Your task to perform on an android device: Open the map Image 0: 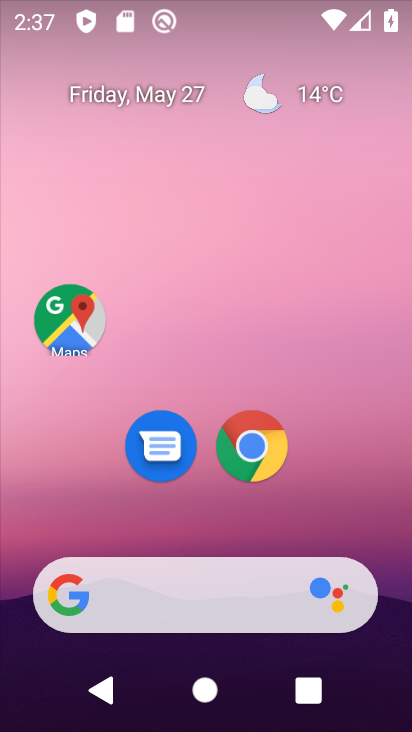
Step 0: press home button
Your task to perform on an android device: Open the map Image 1: 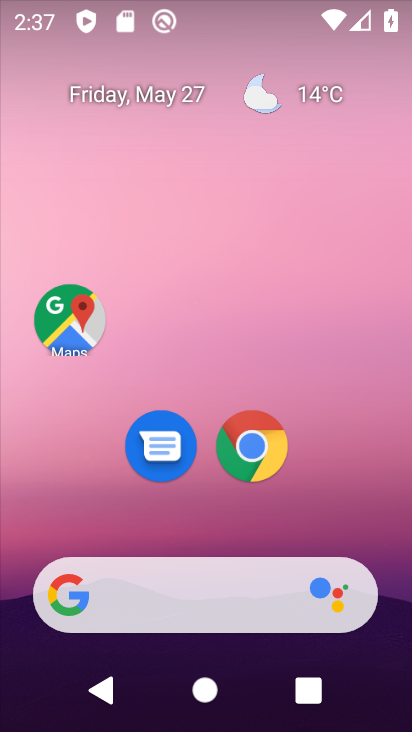
Step 1: click (78, 332)
Your task to perform on an android device: Open the map Image 2: 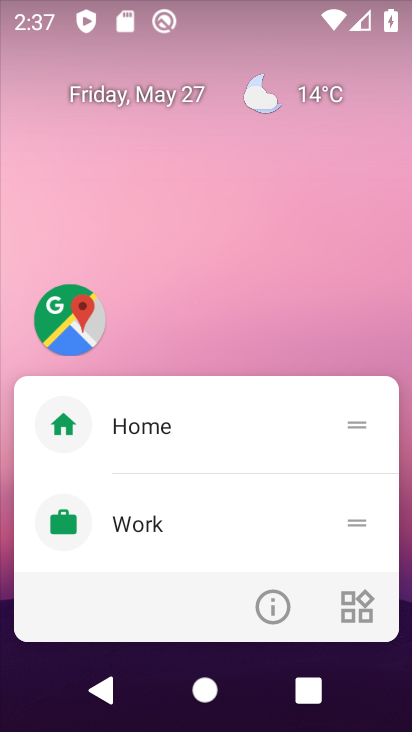
Step 2: click (73, 327)
Your task to perform on an android device: Open the map Image 3: 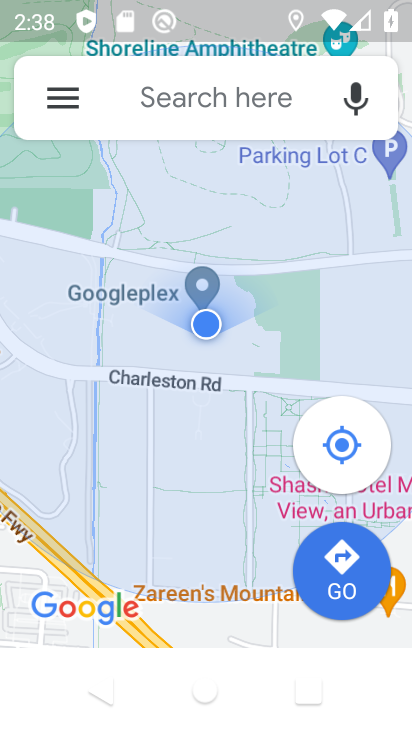
Step 3: task complete